Your task to perform on an android device: turn off location Image 0: 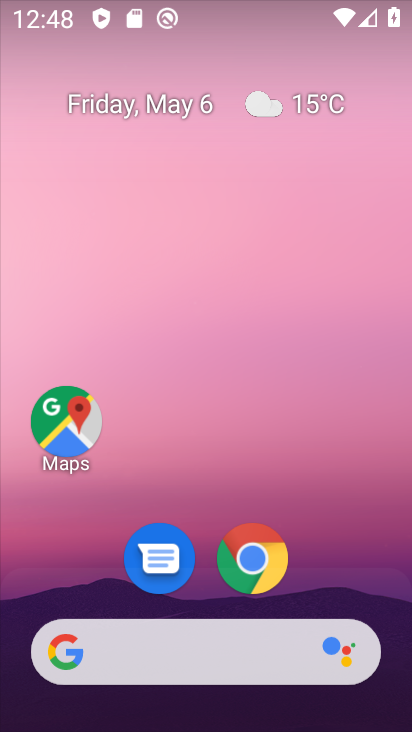
Step 0: drag from (198, 725) to (196, 203)
Your task to perform on an android device: turn off location Image 1: 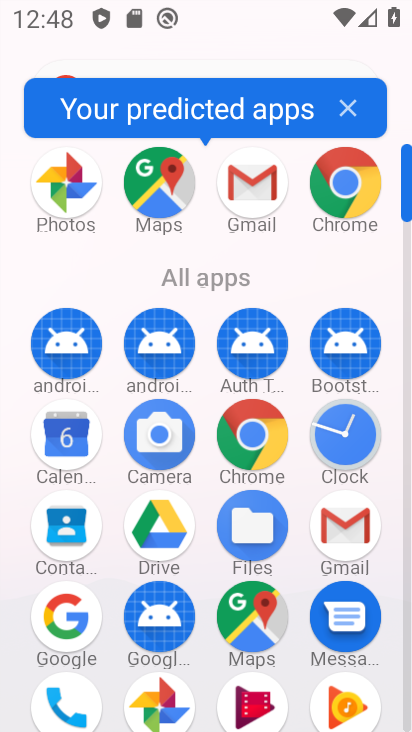
Step 1: drag from (199, 633) to (183, 285)
Your task to perform on an android device: turn off location Image 2: 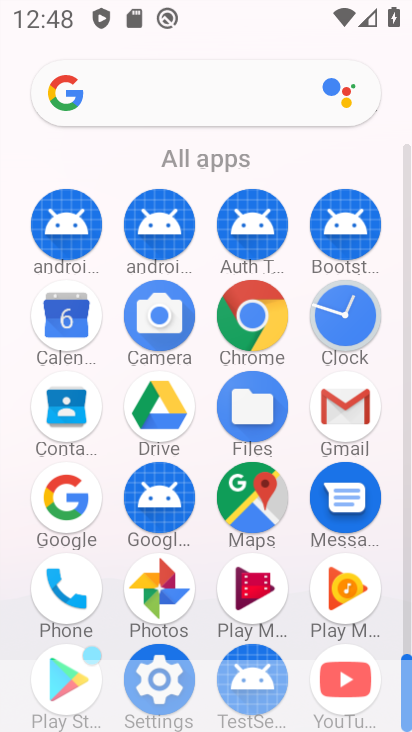
Step 2: click (160, 665)
Your task to perform on an android device: turn off location Image 3: 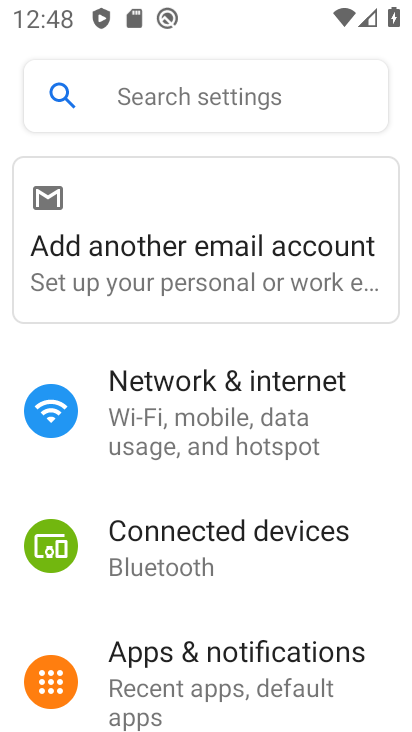
Step 3: drag from (209, 679) to (206, 317)
Your task to perform on an android device: turn off location Image 4: 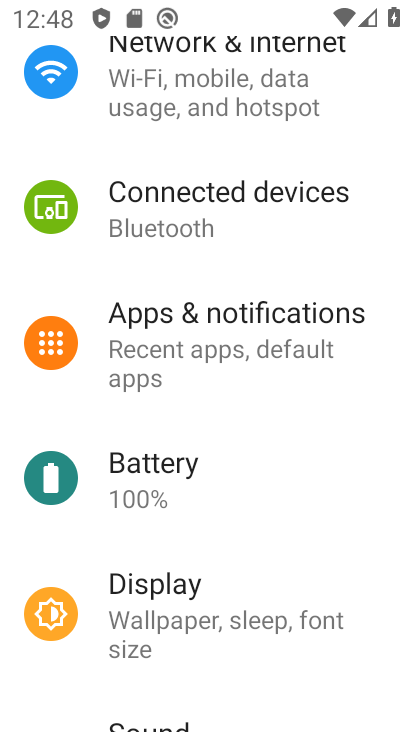
Step 4: drag from (205, 661) to (202, 265)
Your task to perform on an android device: turn off location Image 5: 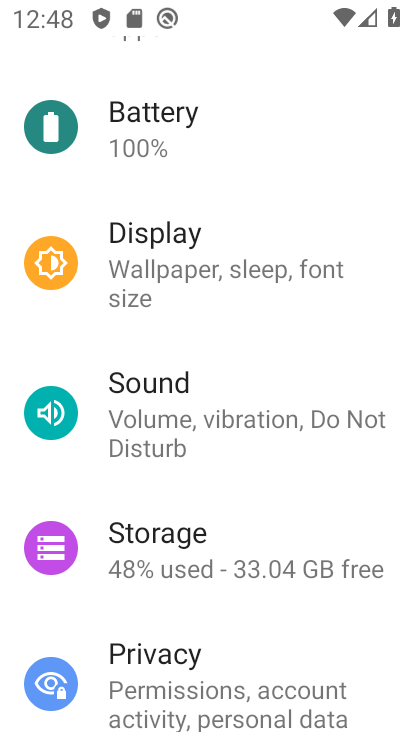
Step 5: drag from (187, 678) to (189, 255)
Your task to perform on an android device: turn off location Image 6: 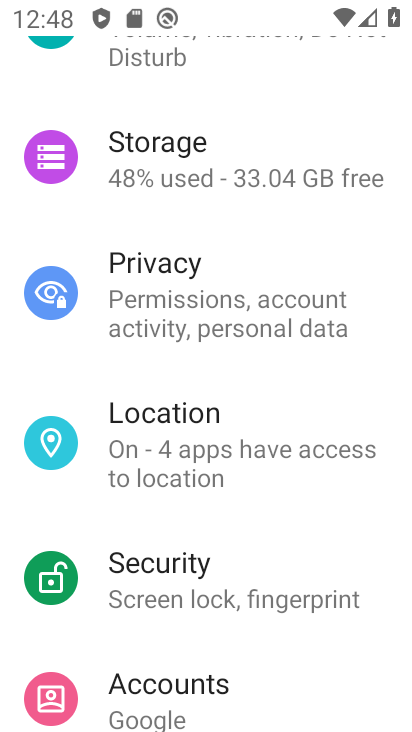
Step 6: click (158, 449)
Your task to perform on an android device: turn off location Image 7: 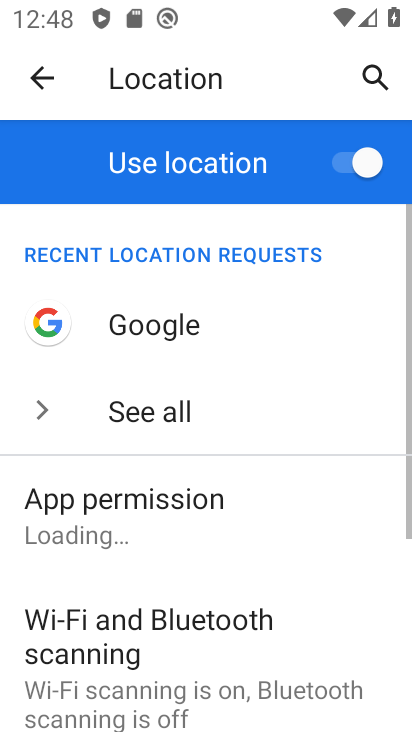
Step 7: click (346, 155)
Your task to perform on an android device: turn off location Image 8: 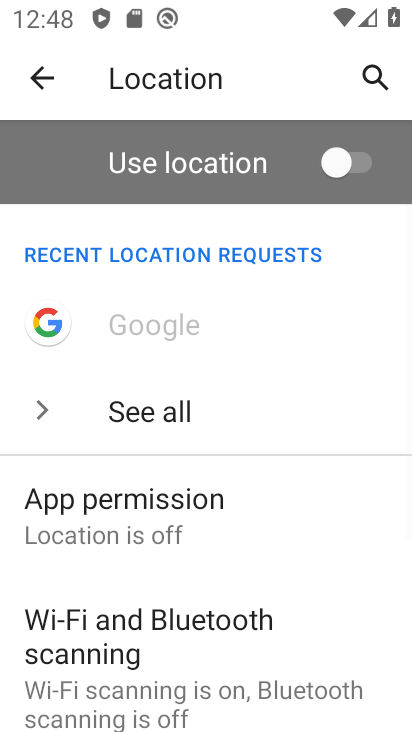
Step 8: task complete